Your task to perform on an android device: Go to battery settings Image 0: 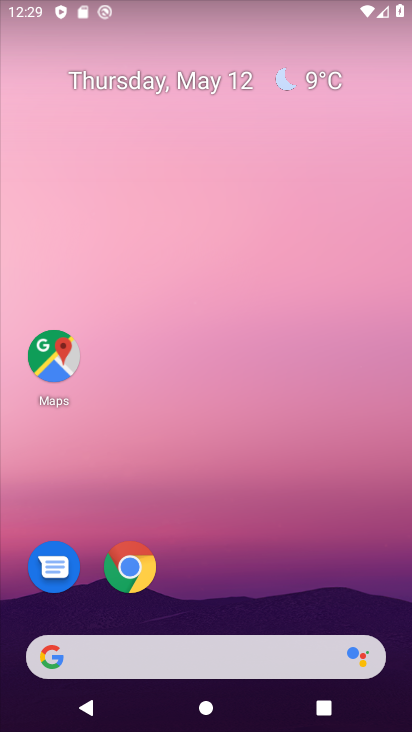
Step 0: drag from (177, 635) to (308, 104)
Your task to perform on an android device: Go to battery settings Image 1: 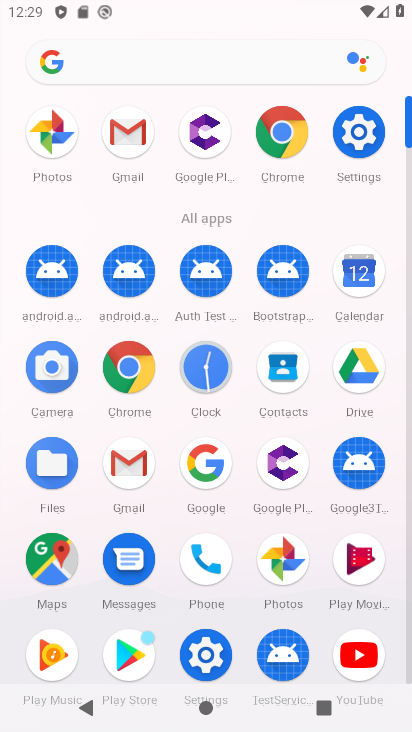
Step 1: click (184, 649)
Your task to perform on an android device: Go to battery settings Image 2: 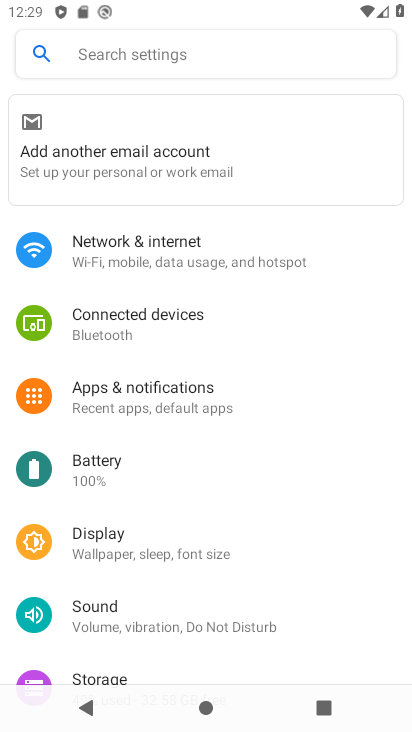
Step 2: drag from (153, 627) to (242, 325)
Your task to perform on an android device: Go to battery settings Image 3: 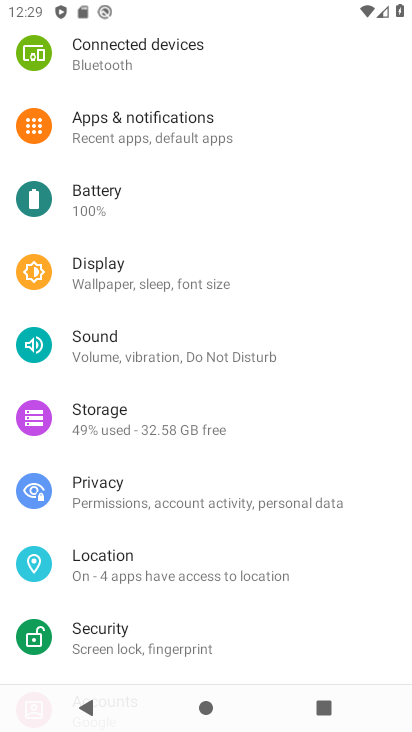
Step 3: drag from (185, 636) to (283, 383)
Your task to perform on an android device: Go to battery settings Image 4: 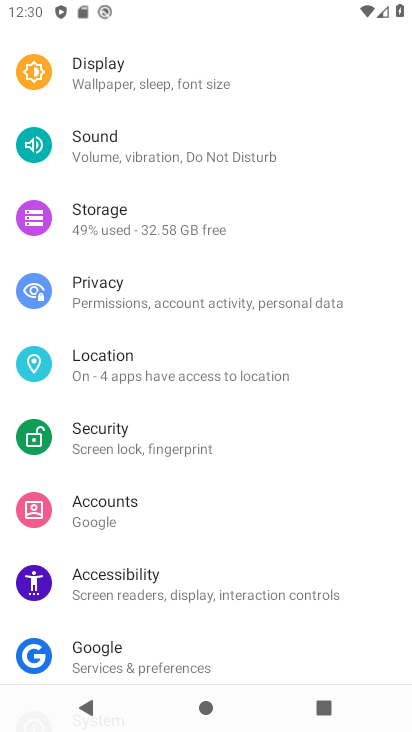
Step 4: drag from (165, 607) to (197, 677)
Your task to perform on an android device: Go to battery settings Image 5: 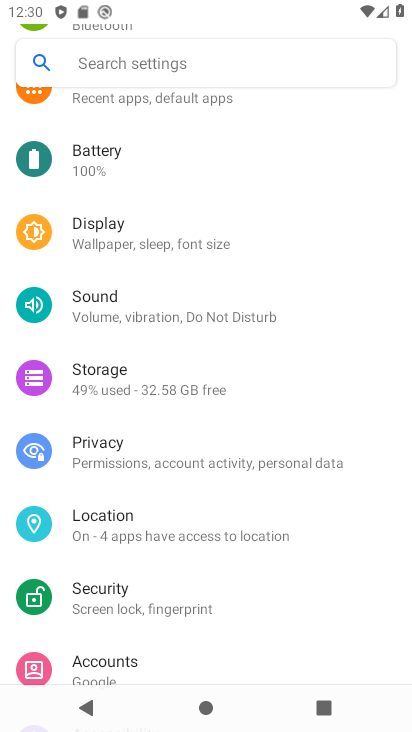
Step 5: click (155, 172)
Your task to perform on an android device: Go to battery settings Image 6: 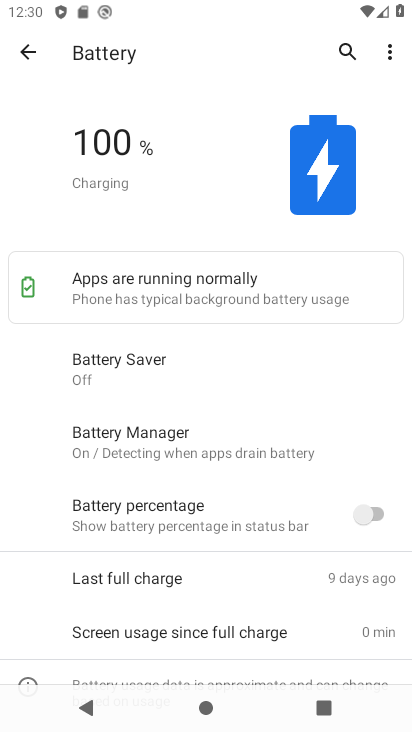
Step 6: task complete